Your task to perform on an android device: Show me productivity apps on the Play Store Image 0: 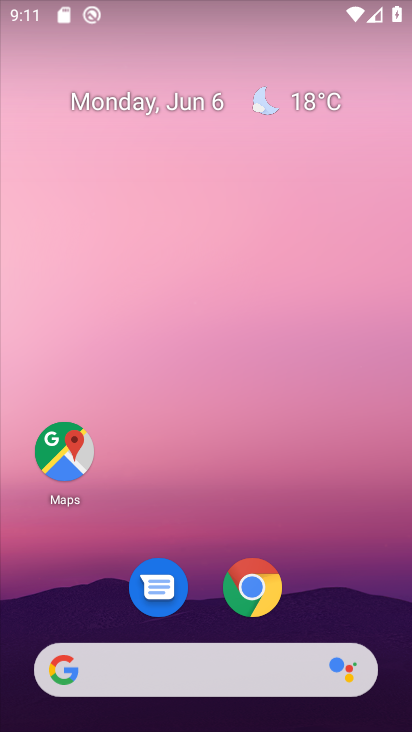
Step 0: drag from (111, 513) to (210, 64)
Your task to perform on an android device: Show me productivity apps on the Play Store Image 1: 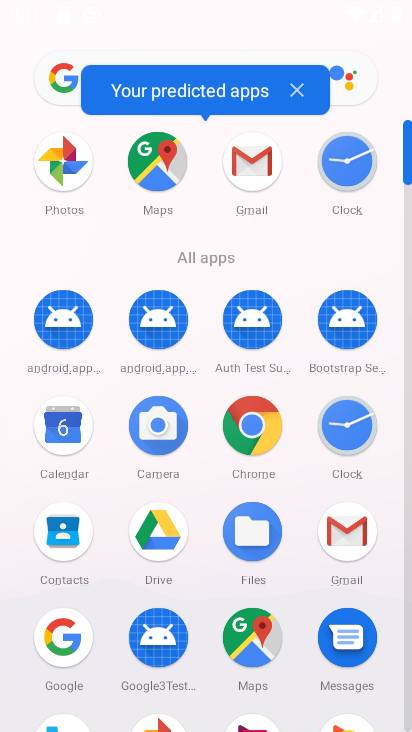
Step 1: drag from (157, 627) to (239, 304)
Your task to perform on an android device: Show me productivity apps on the Play Store Image 2: 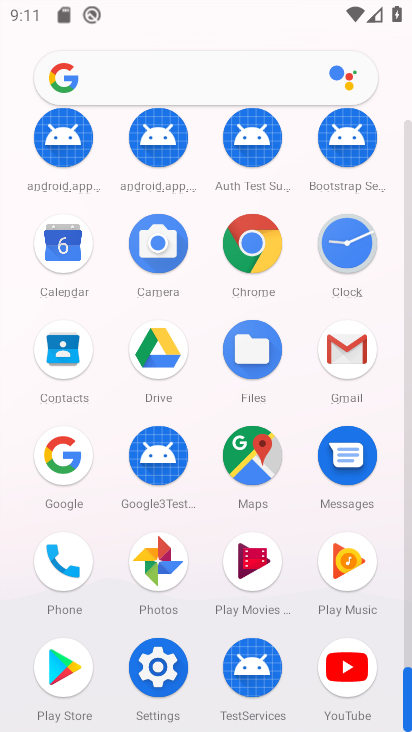
Step 2: click (57, 669)
Your task to perform on an android device: Show me productivity apps on the Play Store Image 3: 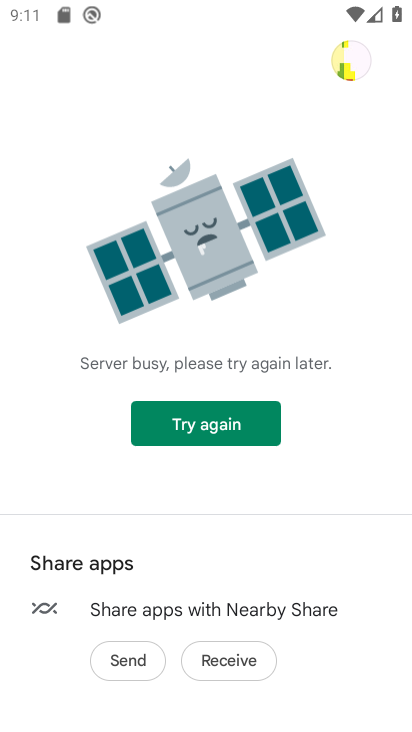
Step 3: task complete